Your task to perform on an android device: Open my contact list Image 0: 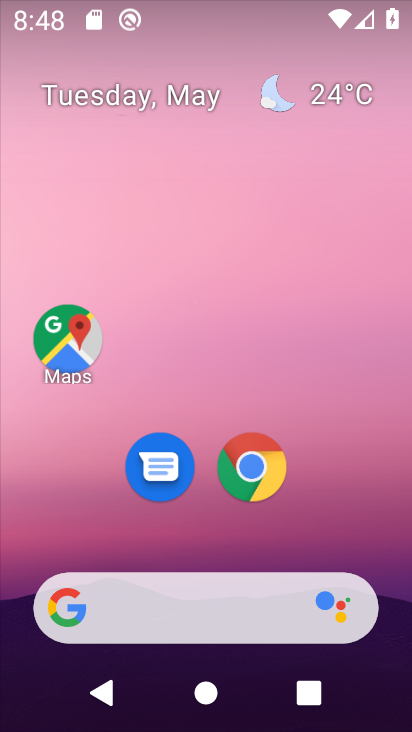
Step 0: drag from (376, 700) to (337, 155)
Your task to perform on an android device: Open my contact list Image 1: 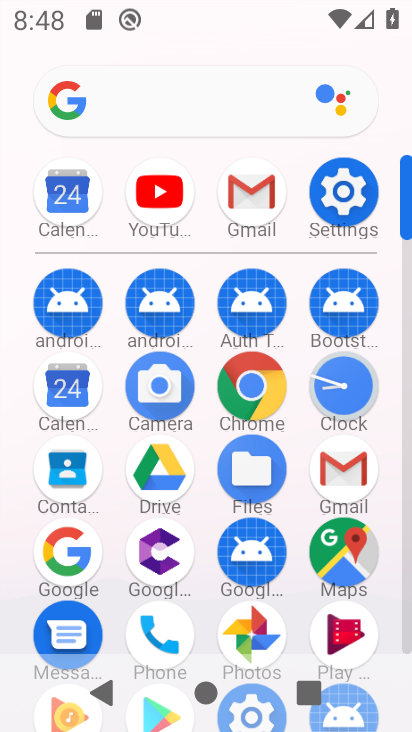
Step 1: click (55, 473)
Your task to perform on an android device: Open my contact list Image 2: 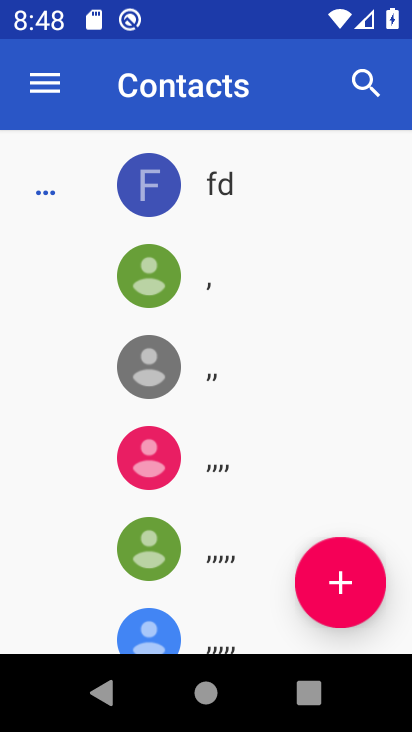
Step 2: click (306, 603)
Your task to perform on an android device: Open my contact list Image 3: 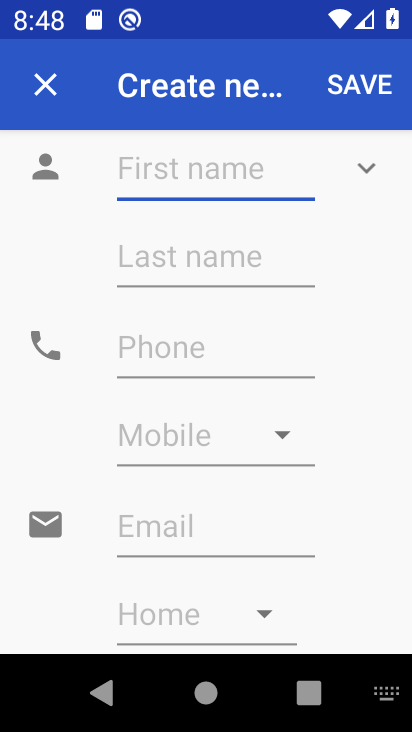
Step 3: type "j c    nh h "
Your task to perform on an android device: Open my contact list Image 4: 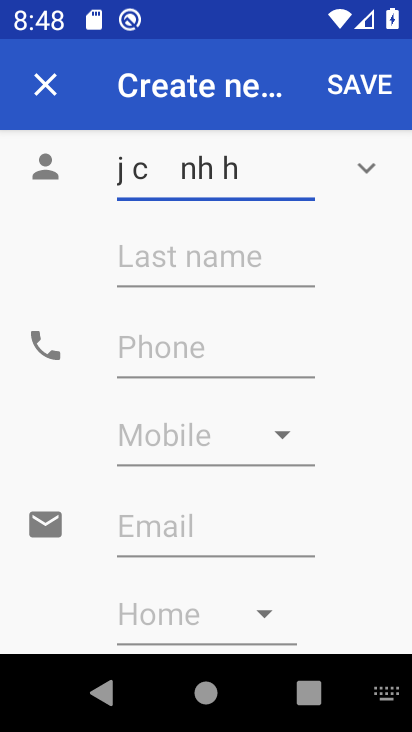
Step 4: click (235, 265)
Your task to perform on an android device: Open my contact list Image 5: 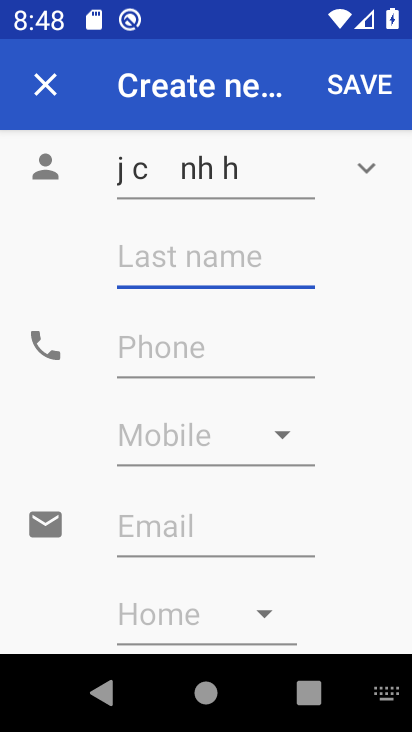
Step 5: type "cd   dd"
Your task to perform on an android device: Open my contact list Image 6: 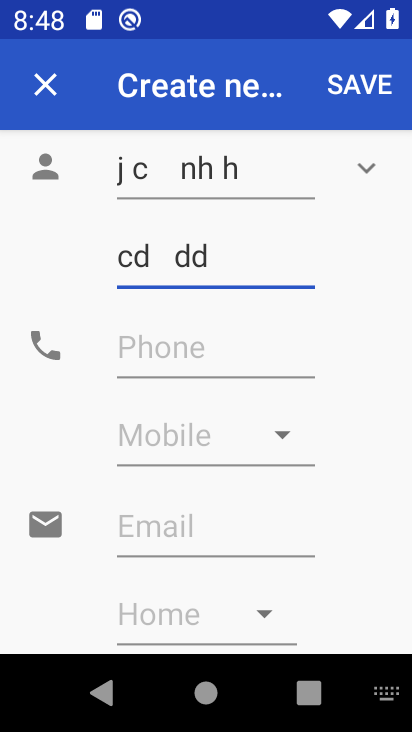
Step 6: click (226, 339)
Your task to perform on an android device: Open my contact list Image 7: 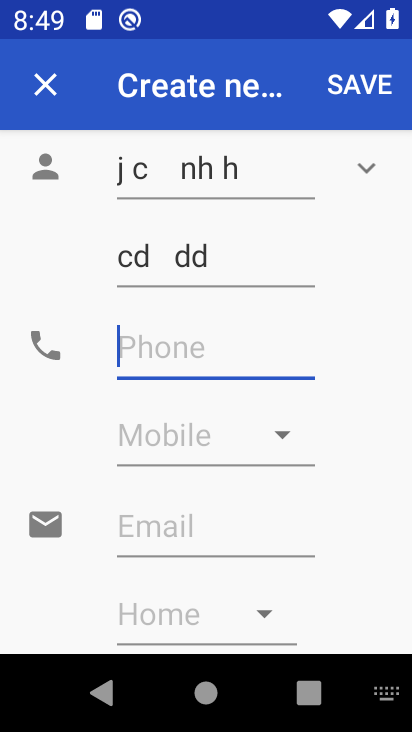
Step 7: type "8547975756757"
Your task to perform on an android device: Open my contact list Image 8: 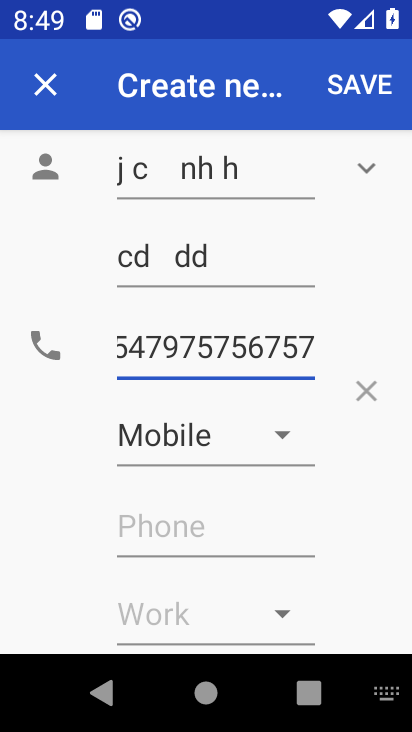
Step 8: click (369, 63)
Your task to perform on an android device: Open my contact list Image 9: 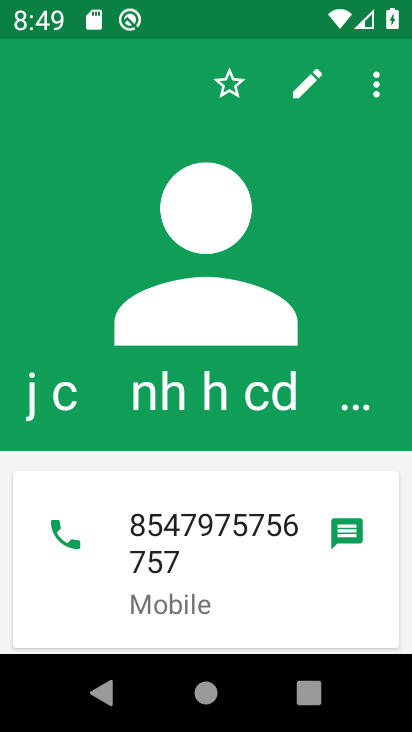
Step 9: task complete